Your task to perform on an android device: Go to Android settings Image 0: 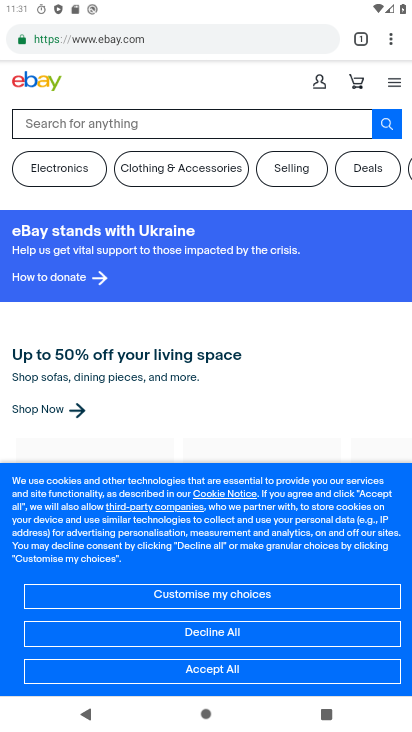
Step 0: press home button
Your task to perform on an android device: Go to Android settings Image 1: 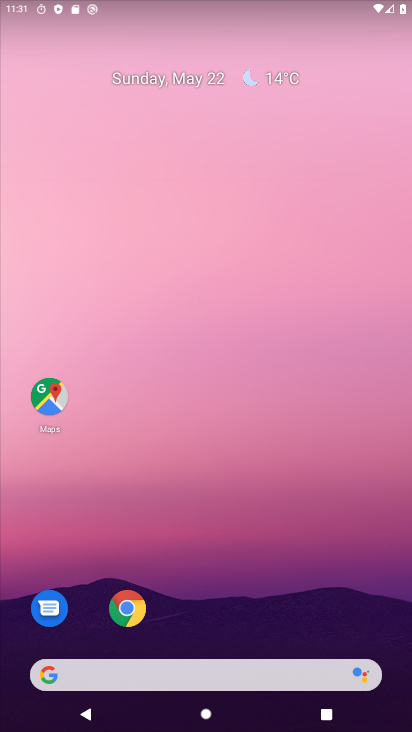
Step 1: drag from (244, 643) to (225, 222)
Your task to perform on an android device: Go to Android settings Image 2: 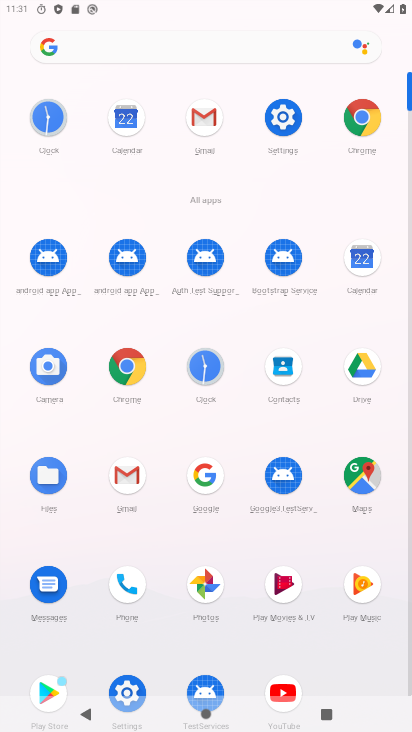
Step 2: click (278, 114)
Your task to perform on an android device: Go to Android settings Image 3: 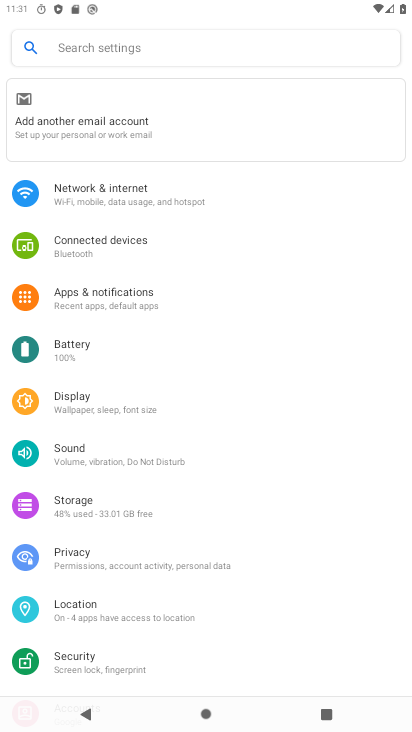
Step 3: task complete